Your task to perform on an android device: turn off airplane mode Image 0: 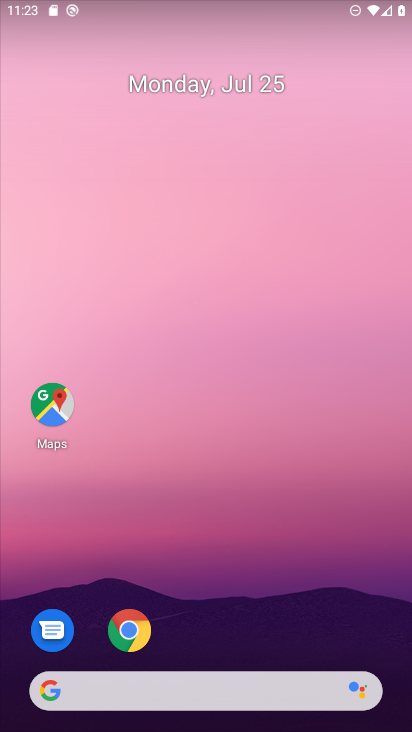
Step 0: drag from (247, 671) to (290, 68)
Your task to perform on an android device: turn off airplane mode Image 1: 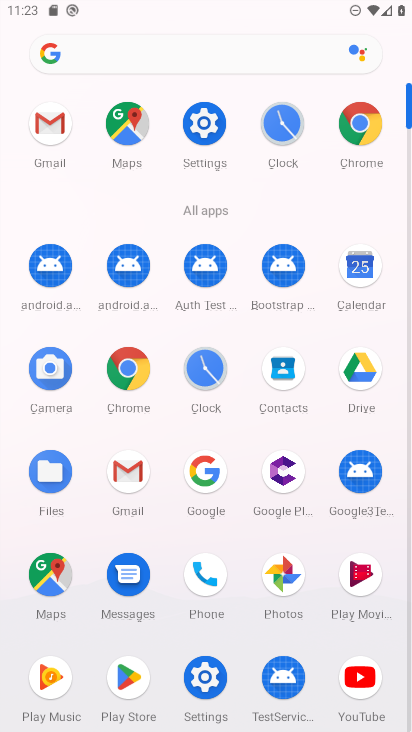
Step 1: click (201, 128)
Your task to perform on an android device: turn off airplane mode Image 2: 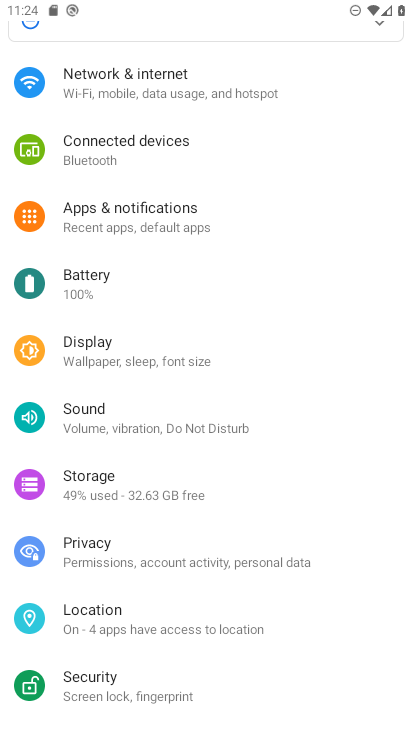
Step 2: click (126, 94)
Your task to perform on an android device: turn off airplane mode Image 3: 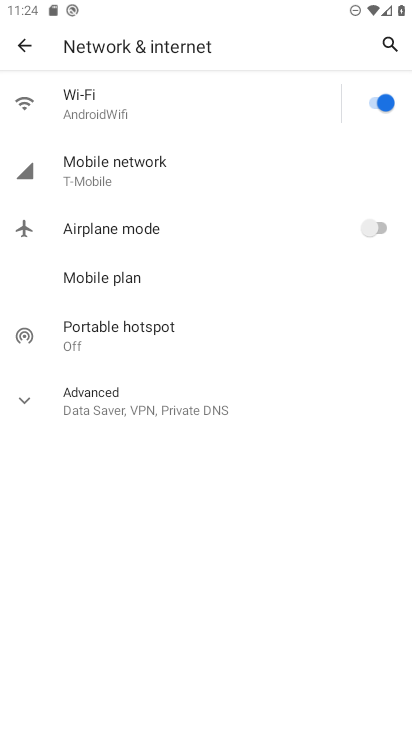
Step 3: task complete